Your task to perform on an android device: Open calendar and show me the fourth week of next month Image 0: 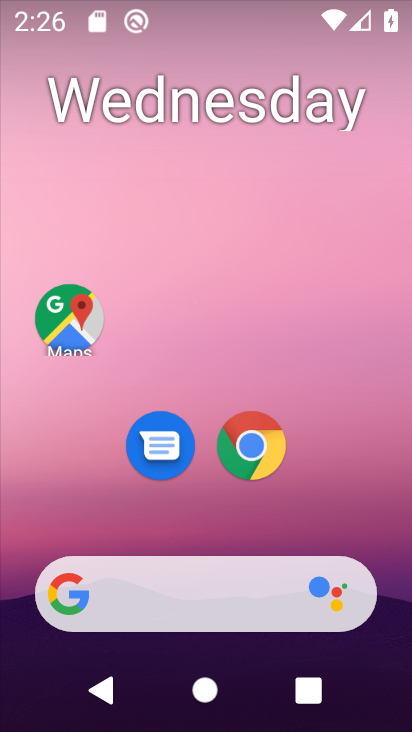
Step 0: drag from (378, 487) to (361, 6)
Your task to perform on an android device: Open calendar and show me the fourth week of next month Image 1: 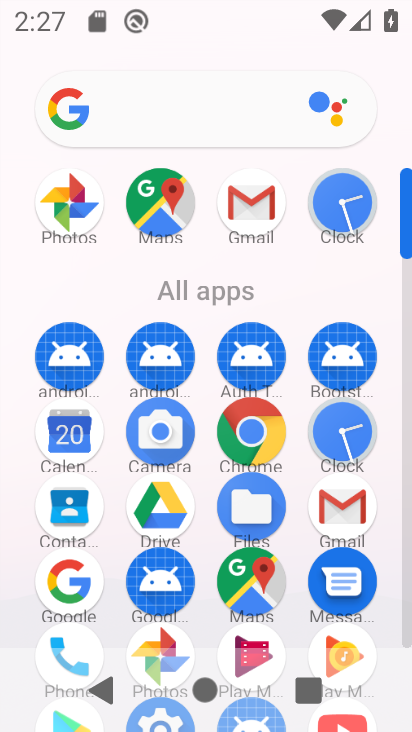
Step 1: click (59, 438)
Your task to perform on an android device: Open calendar and show me the fourth week of next month Image 2: 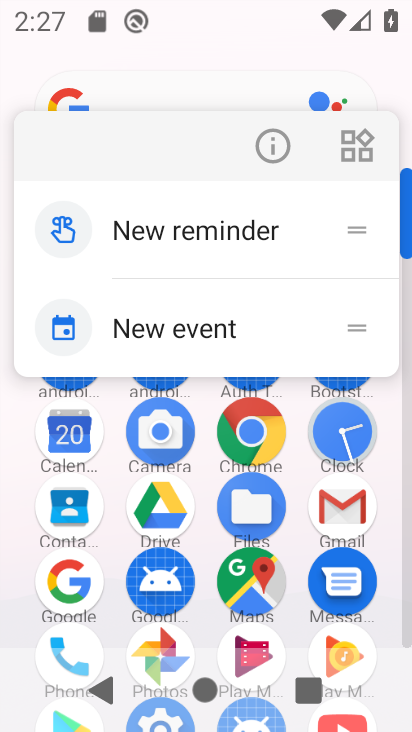
Step 2: click (68, 438)
Your task to perform on an android device: Open calendar and show me the fourth week of next month Image 3: 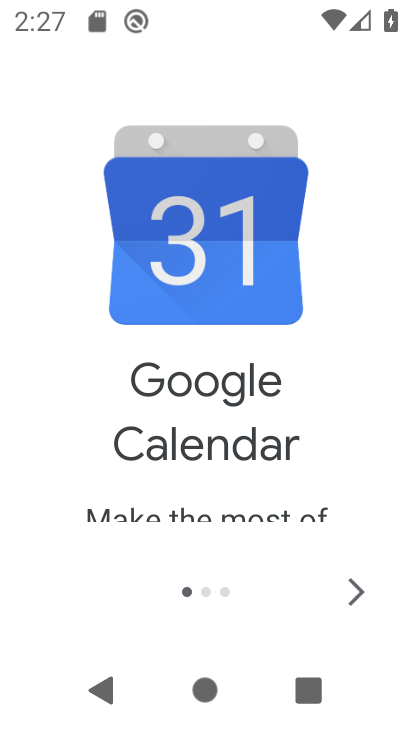
Step 3: click (358, 581)
Your task to perform on an android device: Open calendar and show me the fourth week of next month Image 4: 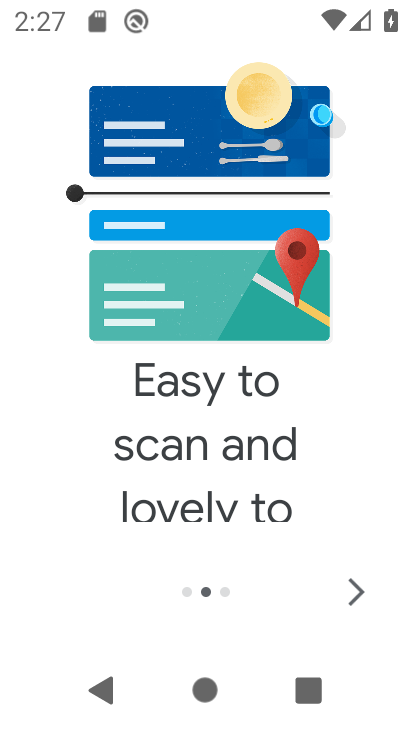
Step 4: click (358, 581)
Your task to perform on an android device: Open calendar and show me the fourth week of next month Image 5: 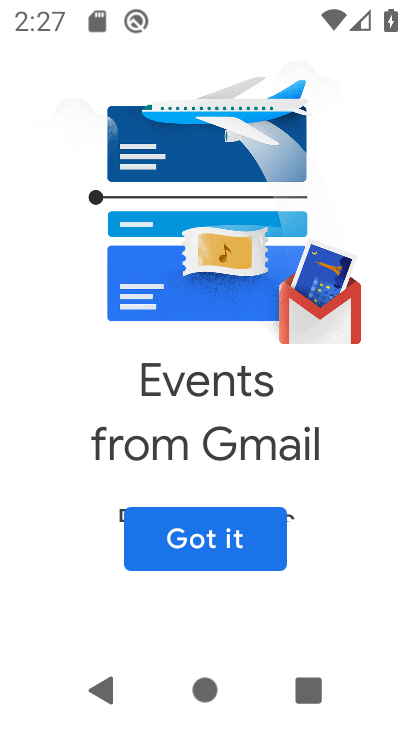
Step 5: click (220, 549)
Your task to perform on an android device: Open calendar and show me the fourth week of next month Image 6: 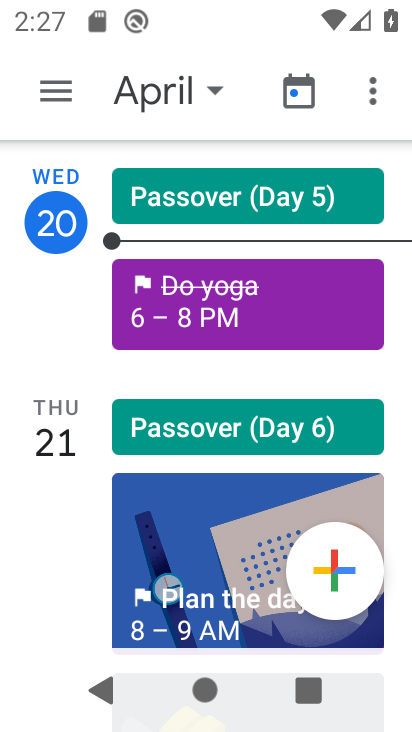
Step 6: click (220, 89)
Your task to perform on an android device: Open calendar and show me the fourth week of next month Image 7: 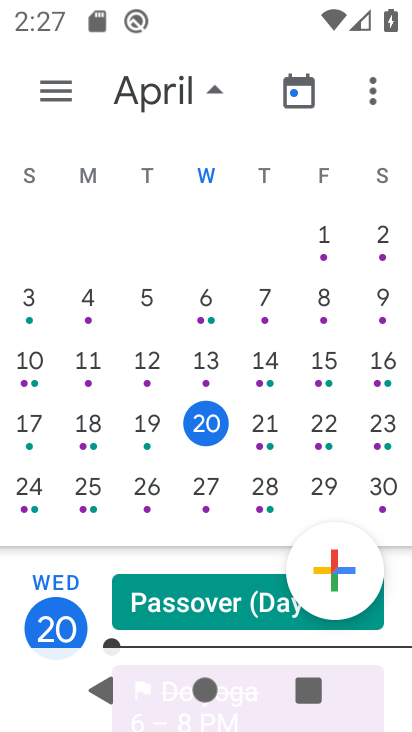
Step 7: drag from (305, 323) to (37, 359)
Your task to perform on an android device: Open calendar and show me the fourth week of next month Image 8: 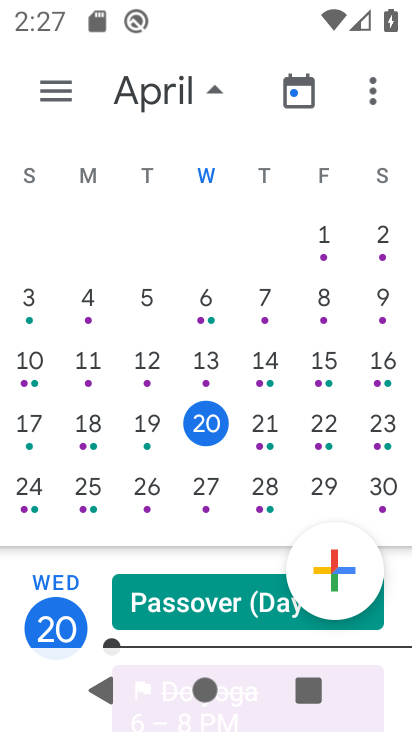
Step 8: drag from (342, 361) to (0, 241)
Your task to perform on an android device: Open calendar and show me the fourth week of next month Image 9: 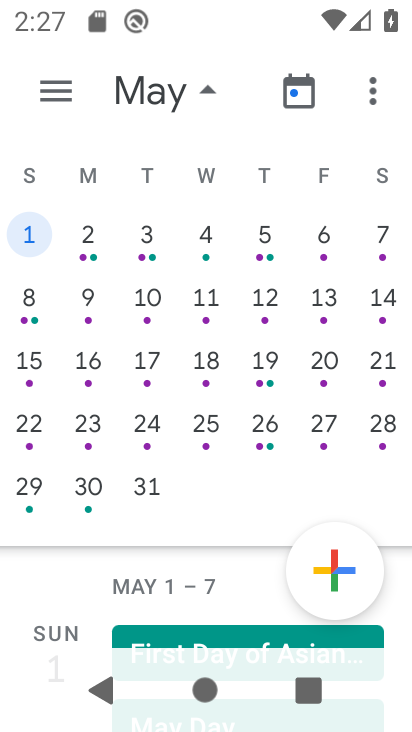
Step 9: click (48, 102)
Your task to perform on an android device: Open calendar and show me the fourth week of next month Image 10: 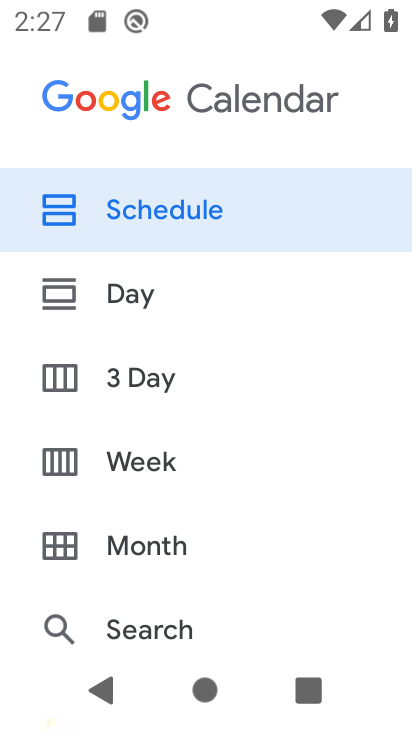
Step 10: click (125, 461)
Your task to perform on an android device: Open calendar and show me the fourth week of next month Image 11: 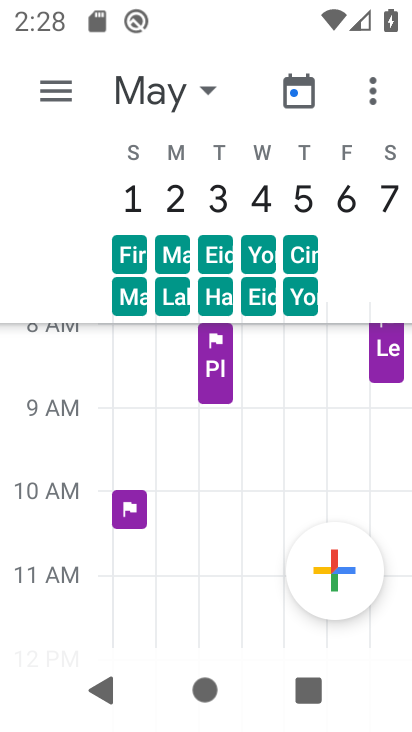
Step 11: task complete